Your task to perform on an android device: choose inbox layout in the gmail app Image 0: 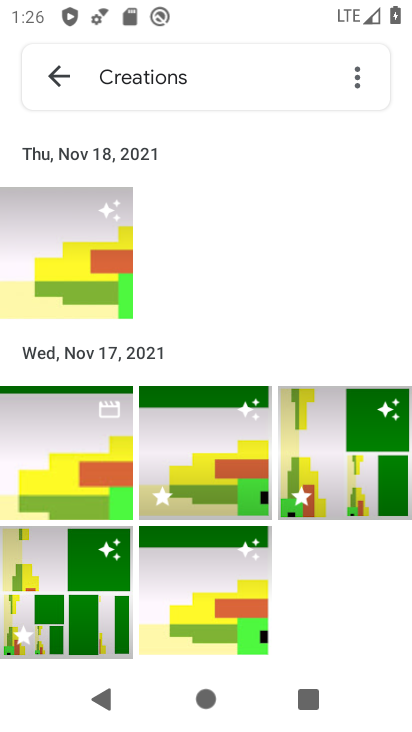
Step 0: click (58, 82)
Your task to perform on an android device: choose inbox layout in the gmail app Image 1: 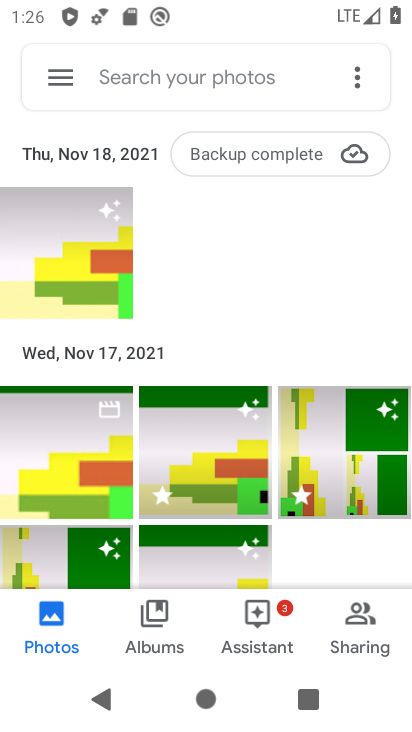
Step 1: click (58, 82)
Your task to perform on an android device: choose inbox layout in the gmail app Image 2: 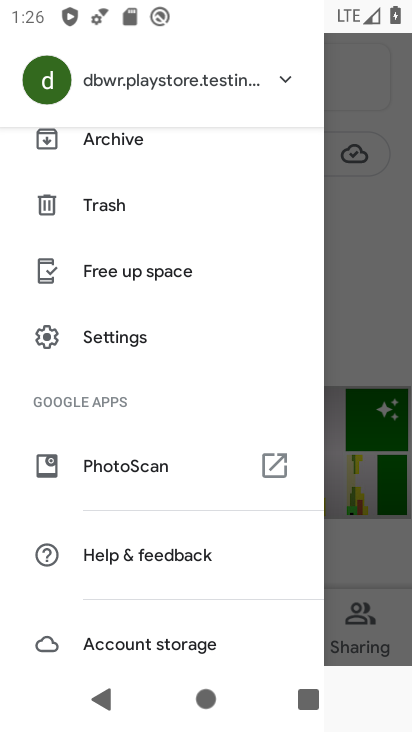
Step 2: click (116, 342)
Your task to perform on an android device: choose inbox layout in the gmail app Image 3: 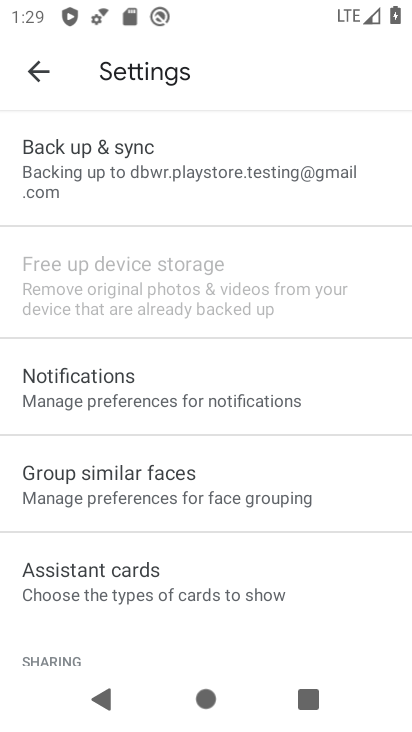
Step 3: drag from (141, 158) to (140, 553)
Your task to perform on an android device: choose inbox layout in the gmail app Image 4: 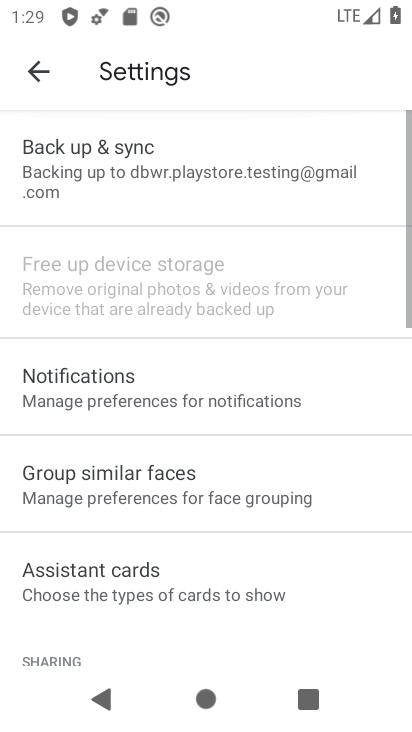
Step 4: click (39, 85)
Your task to perform on an android device: choose inbox layout in the gmail app Image 5: 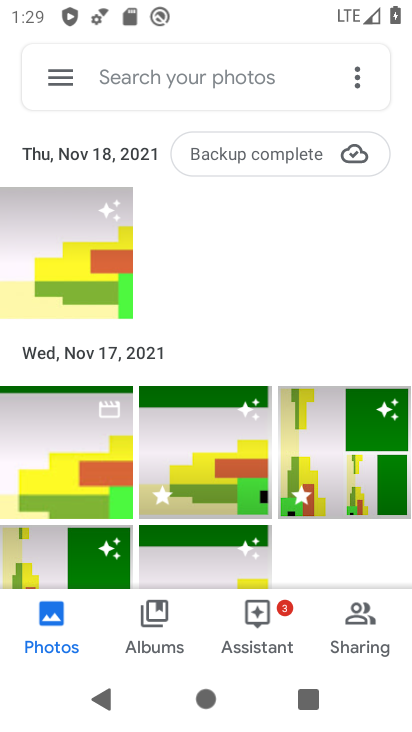
Step 5: press home button
Your task to perform on an android device: choose inbox layout in the gmail app Image 6: 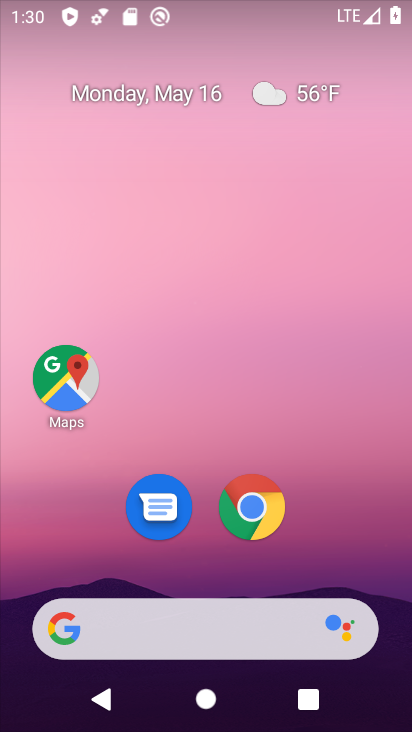
Step 6: drag from (204, 564) to (176, 162)
Your task to perform on an android device: choose inbox layout in the gmail app Image 7: 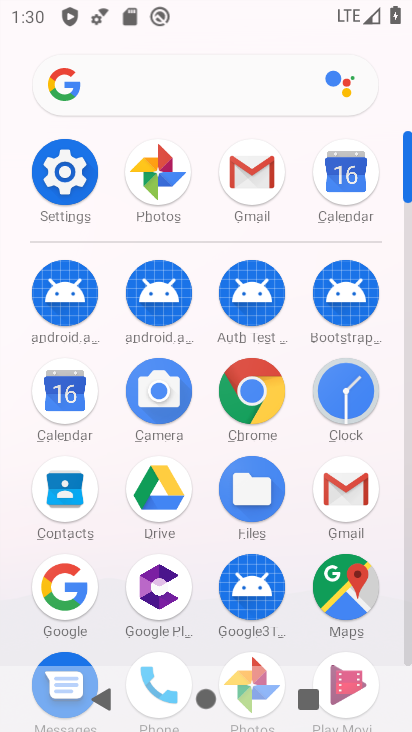
Step 7: click (256, 188)
Your task to perform on an android device: choose inbox layout in the gmail app Image 8: 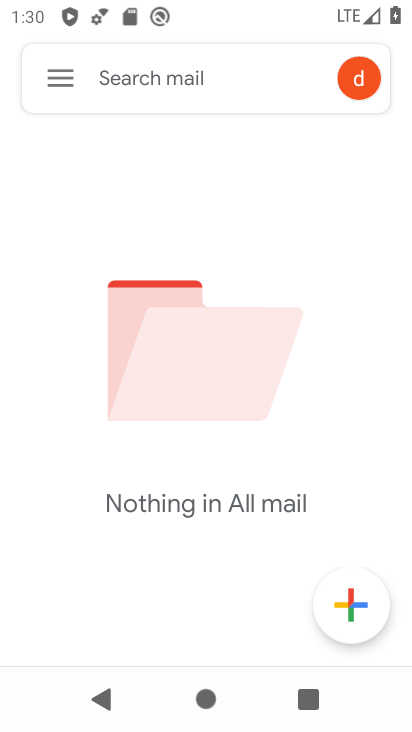
Step 8: click (58, 56)
Your task to perform on an android device: choose inbox layout in the gmail app Image 9: 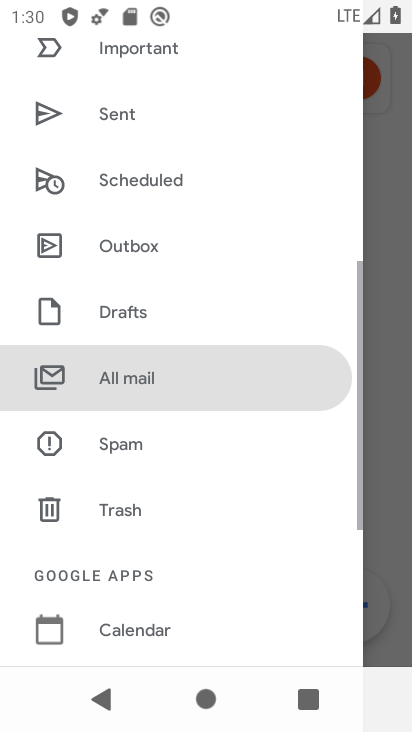
Step 9: drag from (173, 568) to (238, 292)
Your task to perform on an android device: choose inbox layout in the gmail app Image 10: 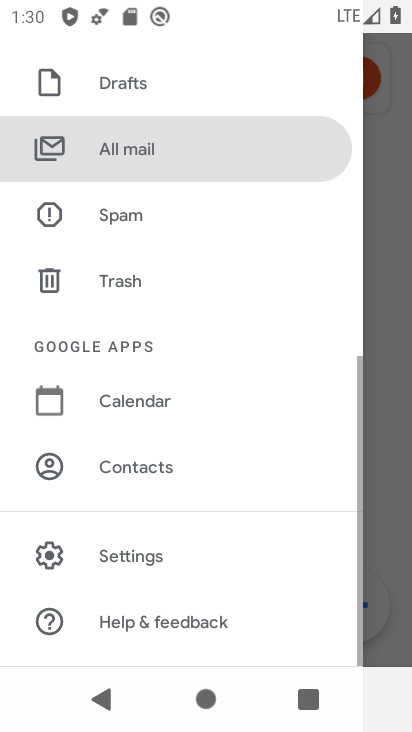
Step 10: click (160, 561)
Your task to perform on an android device: choose inbox layout in the gmail app Image 11: 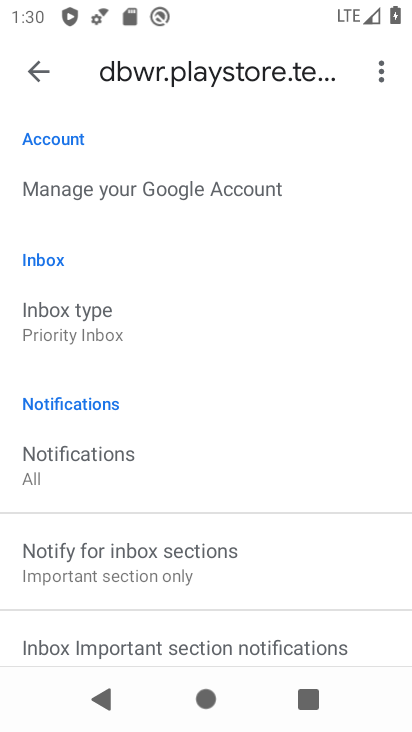
Step 11: click (125, 322)
Your task to perform on an android device: choose inbox layout in the gmail app Image 12: 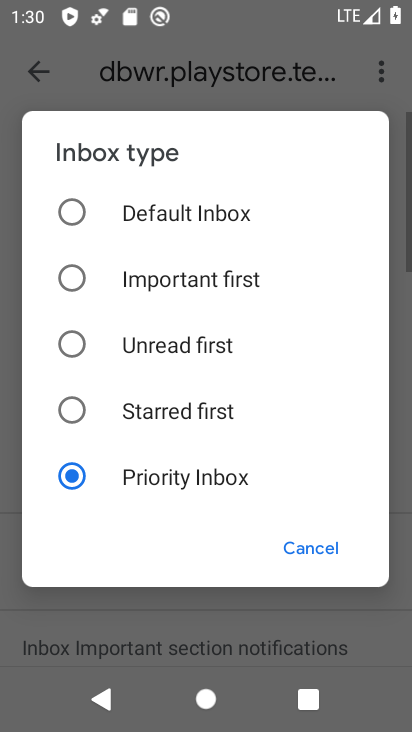
Step 12: click (164, 203)
Your task to perform on an android device: choose inbox layout in the gmail app Image 13: 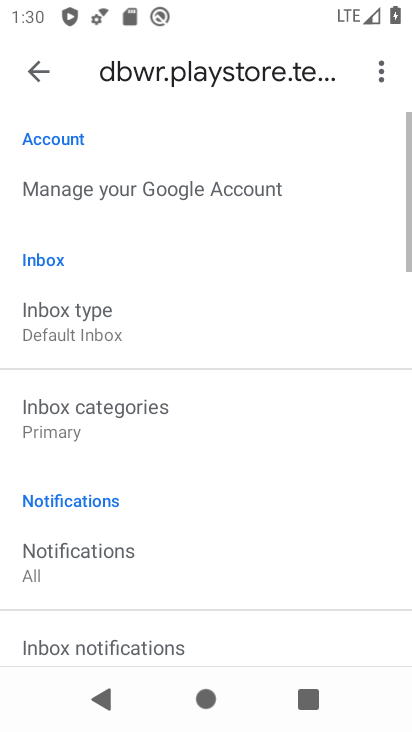
Step 13: task complete